Your task to perform on an android device: find snoozed emails in the gmail app Image 0: 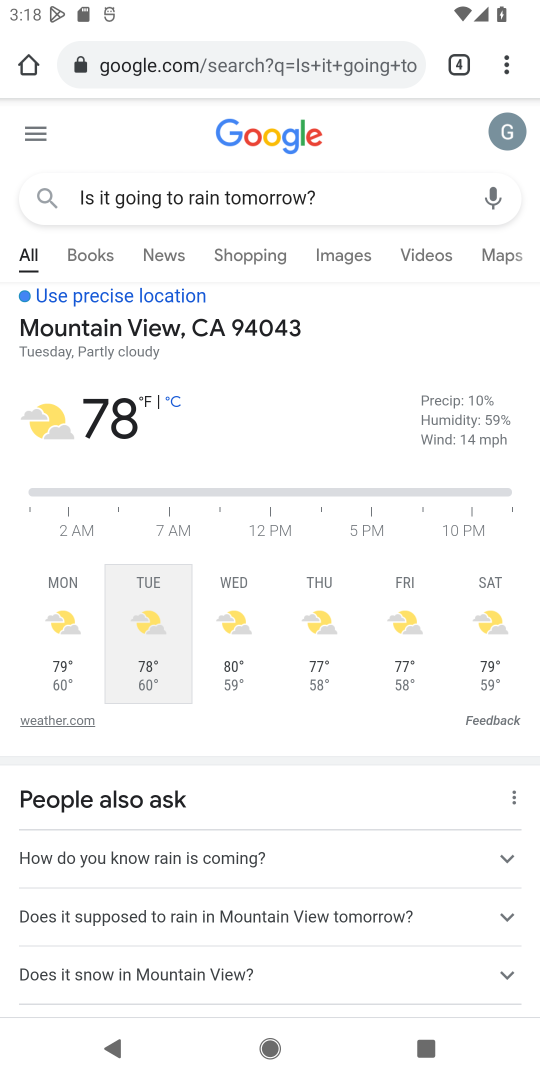
Step 0: press home button
Your task to perform on an android device: find snoozed emails in the gmail app Image 1: 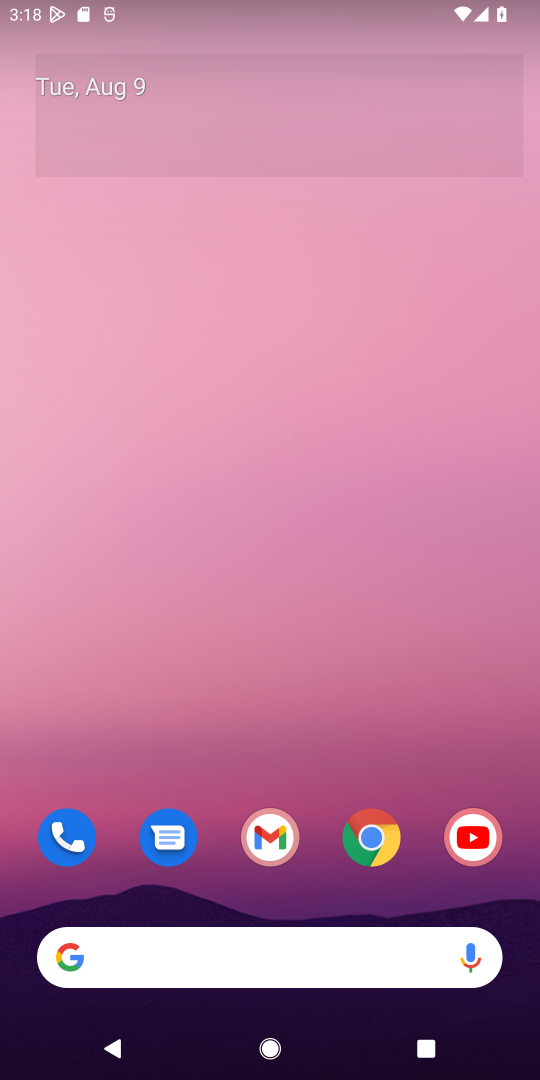
Step 1: drag from (292, 723) to (279, 151)
Your task to perform on an android device: find snoozed emails in the gmail app Image 2: 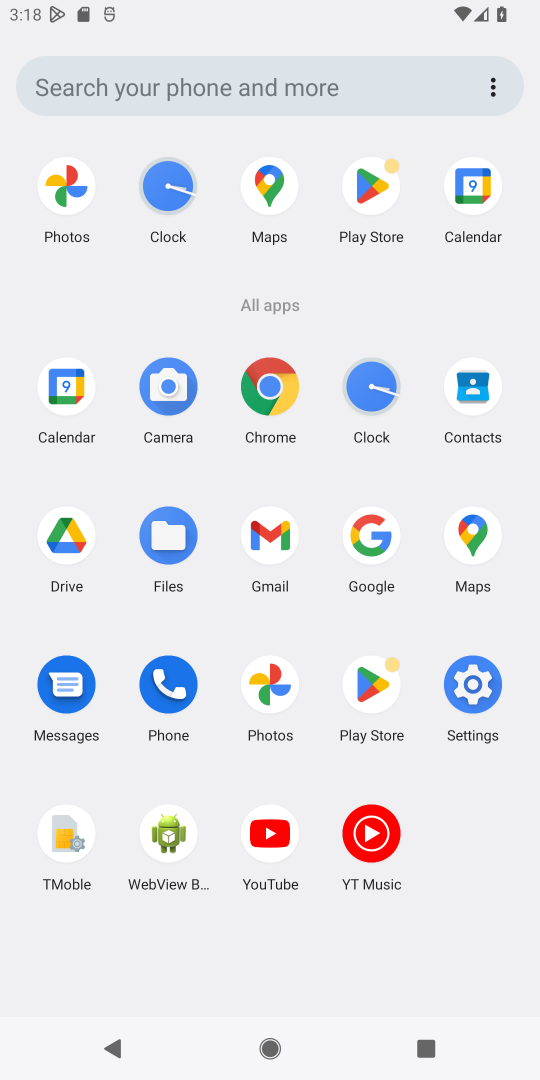
Step 2: click (277, 528)
Your task to perform on an android device: find snoozed emails in the gmail app Image 3: 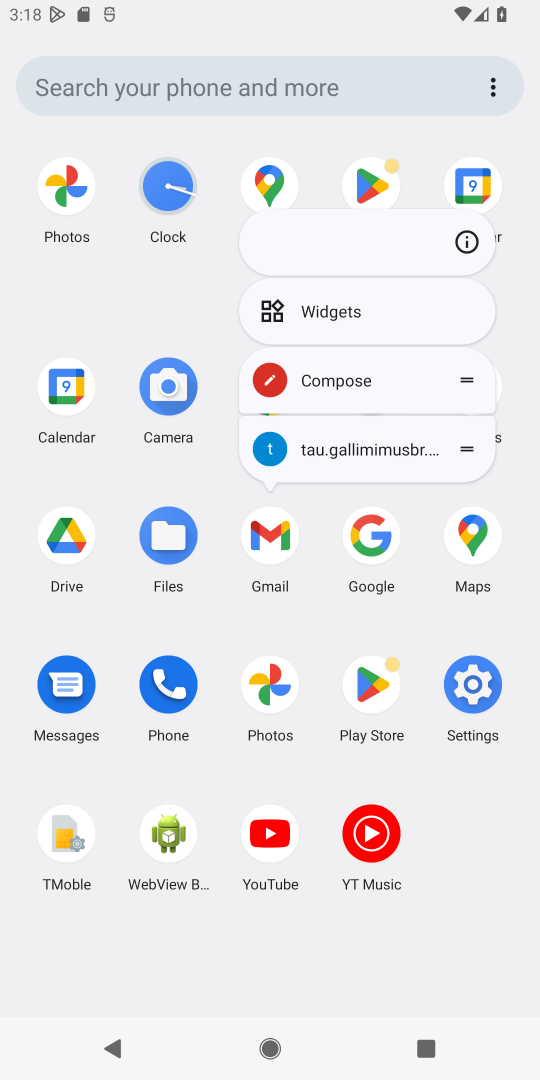
Step 3: click (272, 536)
Your task to perform on an android device: find snoozed emails in the gmail app Image 4: 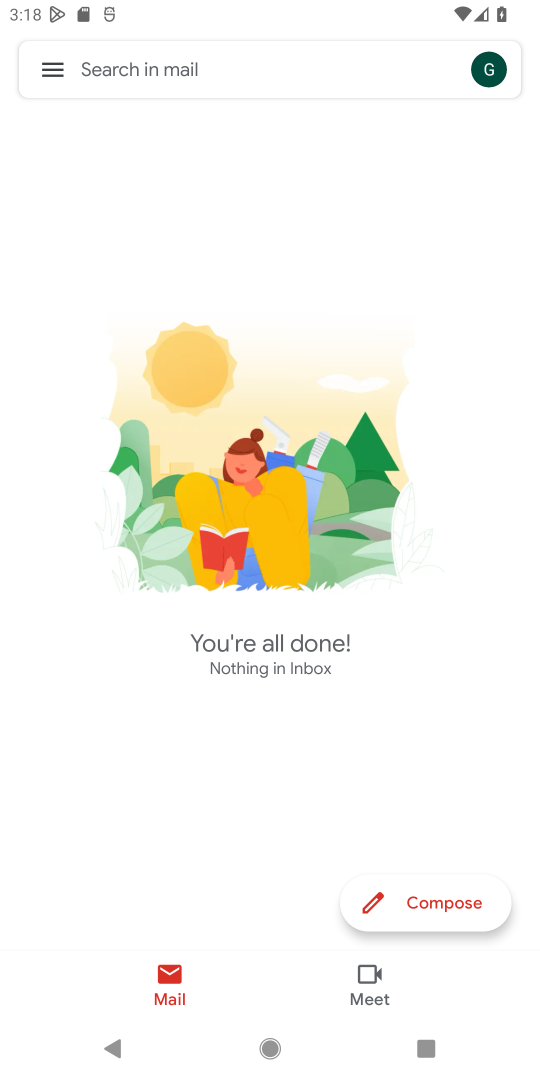
Step 4: click (52, 60)
Your task to perform on an android device: find snoozed emails in the gmail app Image 5: 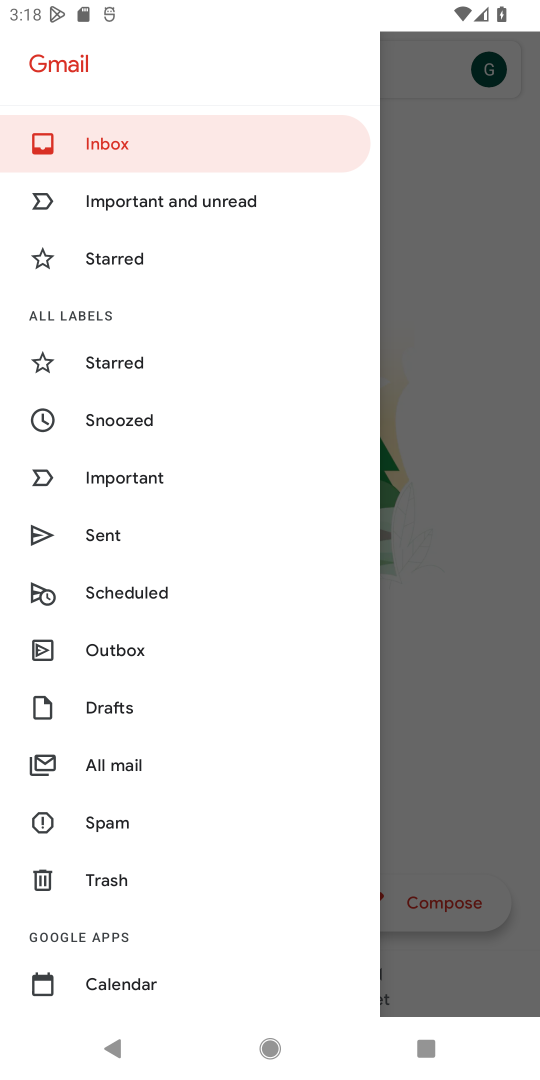
Step 5: click (152, 409)
Your task to perform on an android device: find snoozed emails in the gmail app Image 6: 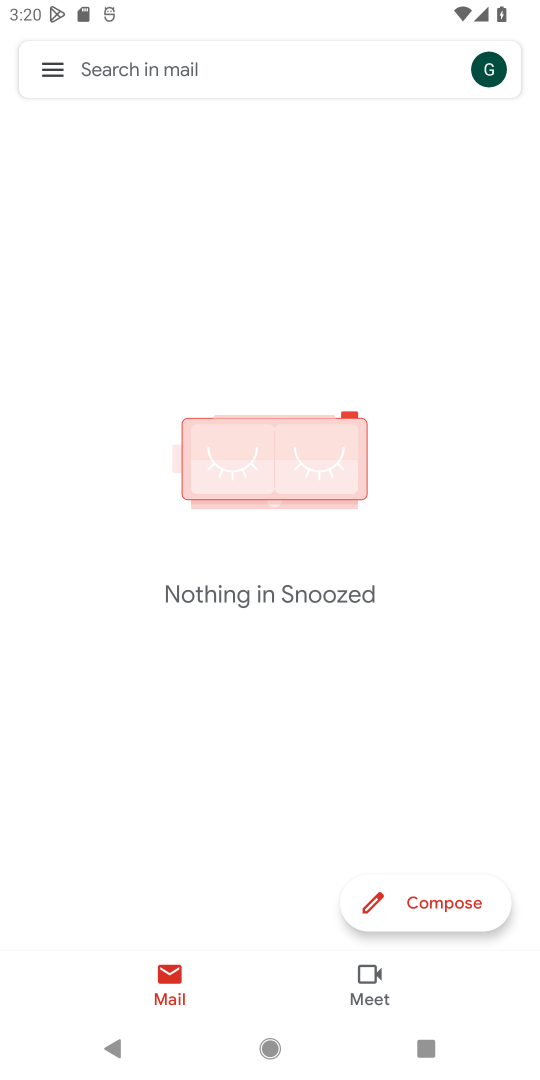
Step 6: task complete